Your task to perform on an android device: star an email in the gmail app Image 0: 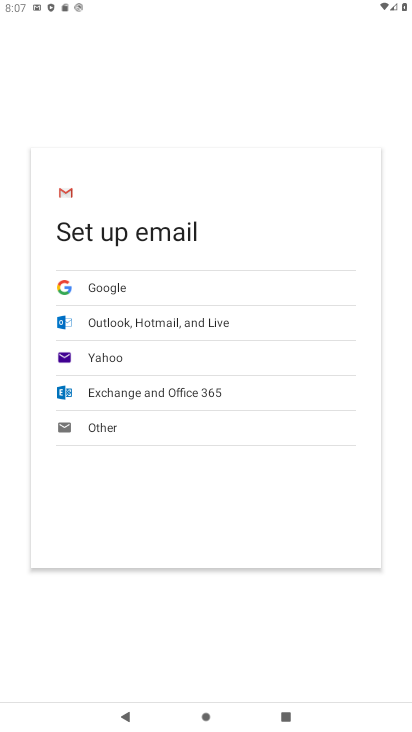
Step 0: press home button
Your task to perform on an android device: star an email in the gmail app Image 1: 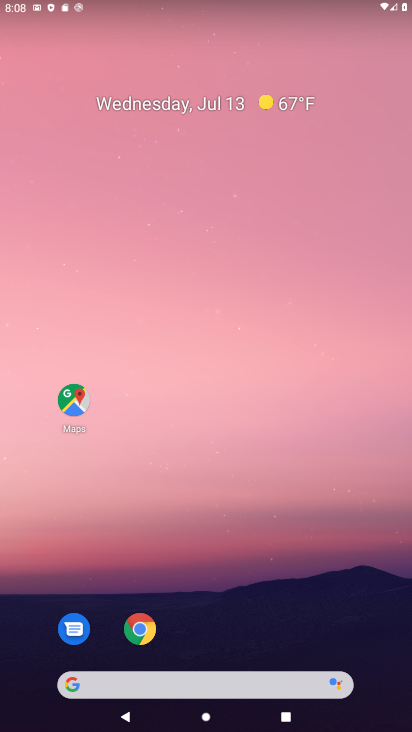
Step 1: drag from (217, 638) to (290, 49)
Your task to perform on an android device: star an email in the gmail app Image 2: 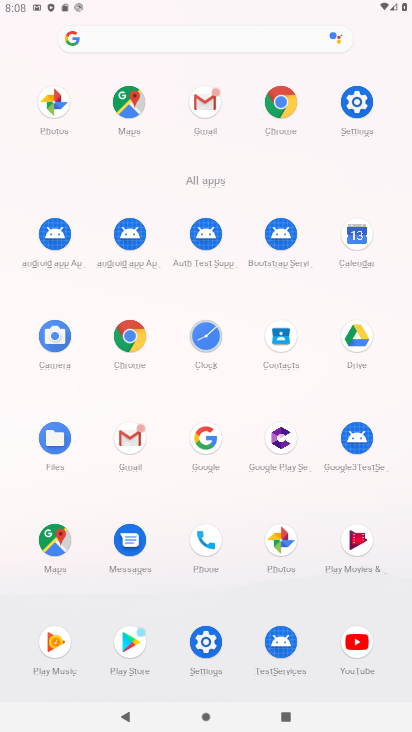
Step 2: click (131, 445)
Your task to perform on an android device: star an email in the gmail app Image 3: 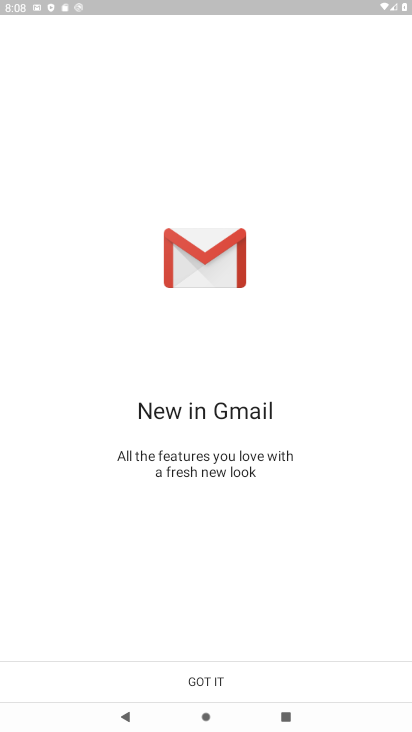
Step 3: click (265, 681)
Your task to perform on an android device: star an email in the gmail app Image 4: 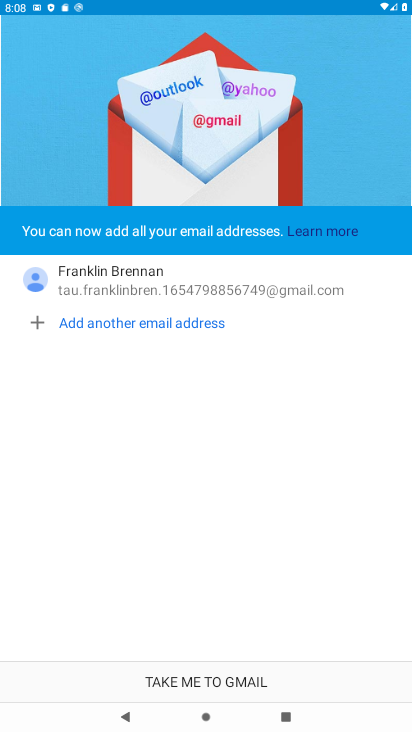
Step 4: click (261, 678)
Your task to perform on an android device: star an email in the gmail app Image 5: 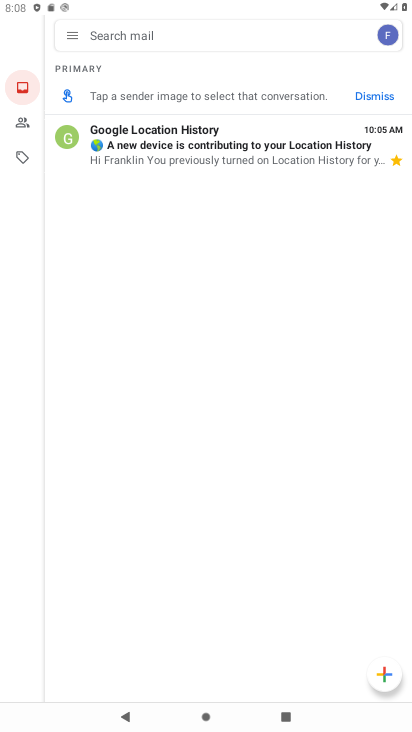
Step 5: task complete